Your task to perform on an android device: Open maps Image 0: 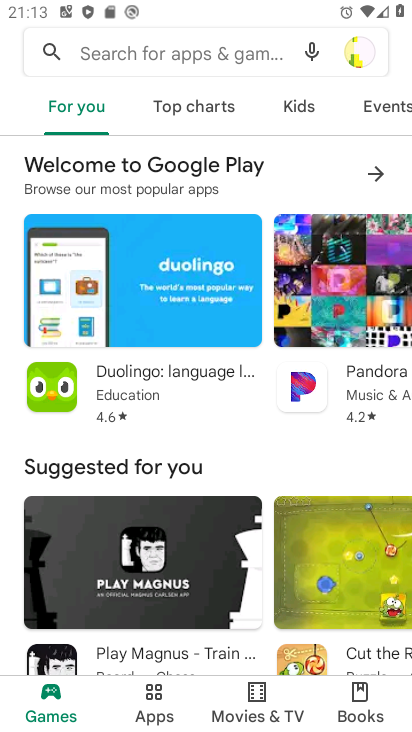
Step 0: press home button
Your task to perform on an android device: Open maps Image 1: 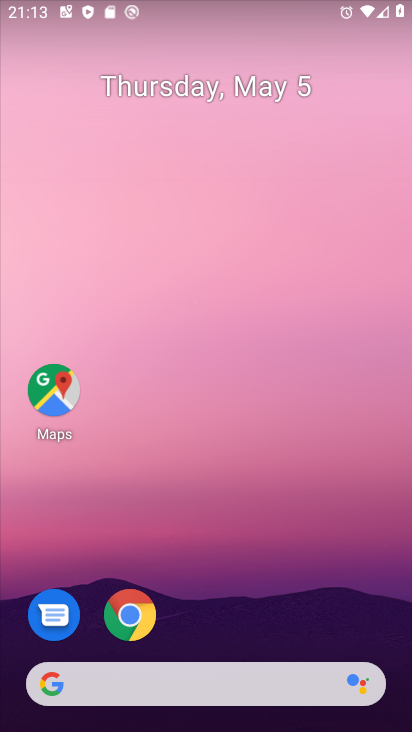
Step 1: click (54, 399)
Your task to perform on an android device: Open maps Image 2: 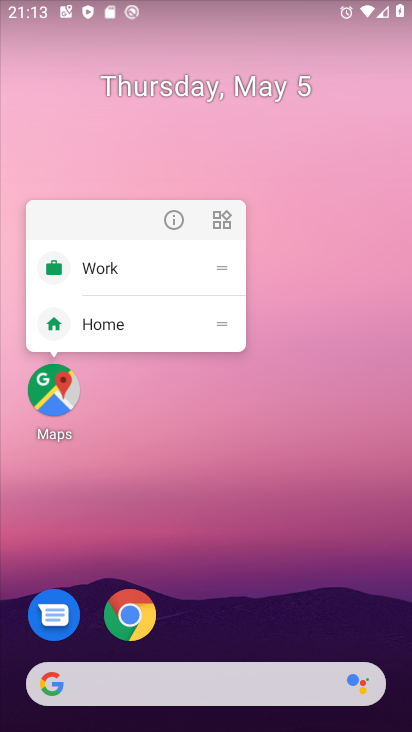
Step 2: click (173, 231)
Your task to perform on an android device: Open maps Image 3: 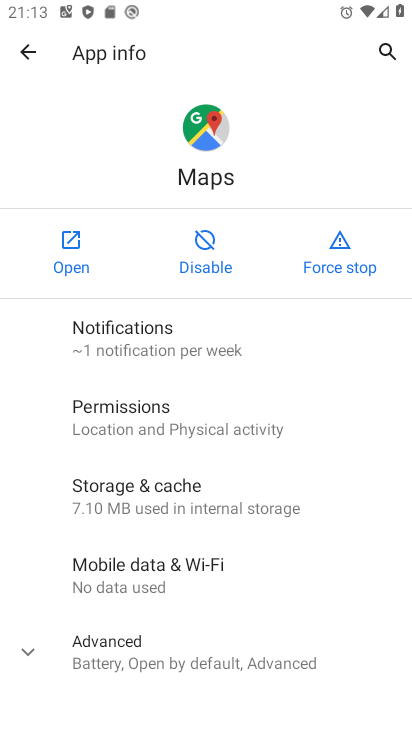
Step 3: click (79, 276)
Your task to perform on an android device: Open maps Image 4: 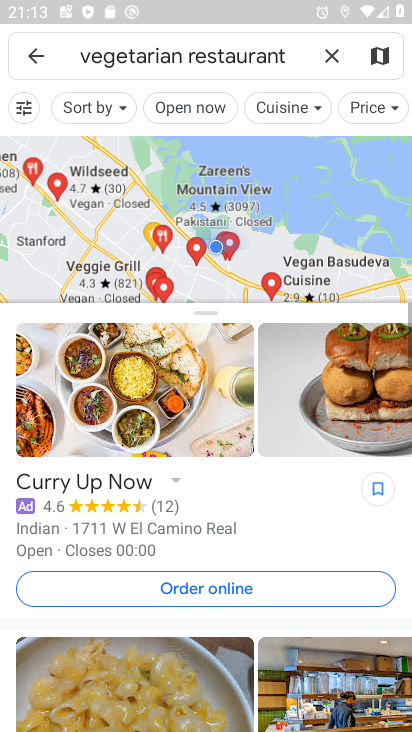
Step 4: task complete